Your task to perform on an android device: Open wifi settings Image 0: 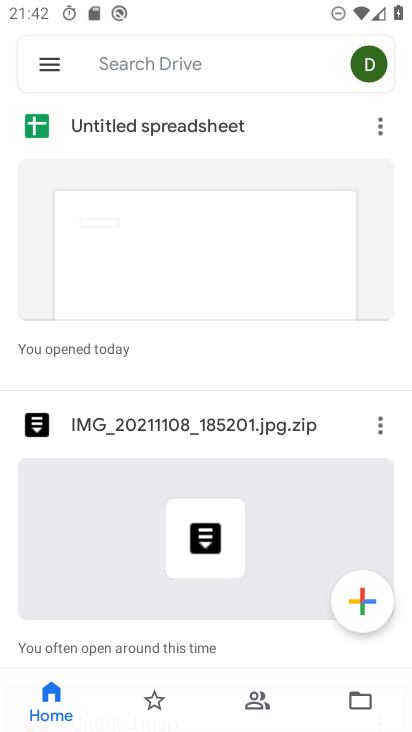
Step 0: press home button
Your task to perform on an android device: Open wifi settings Image 1: 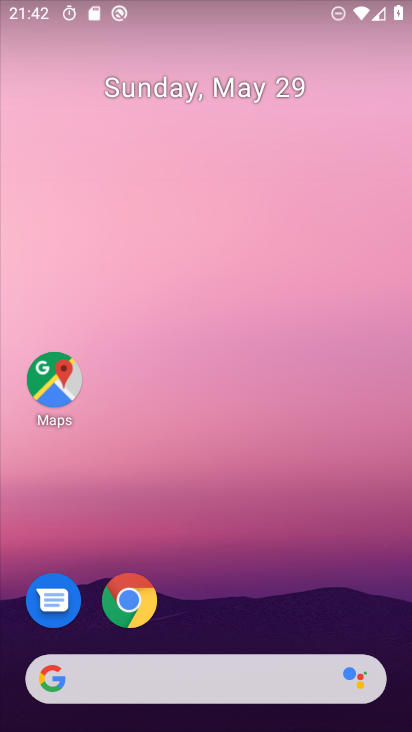
Step 1: drag from (331, 575) to (348, 167)
Your task to perform on an android device: Open wifi settings Image 2: 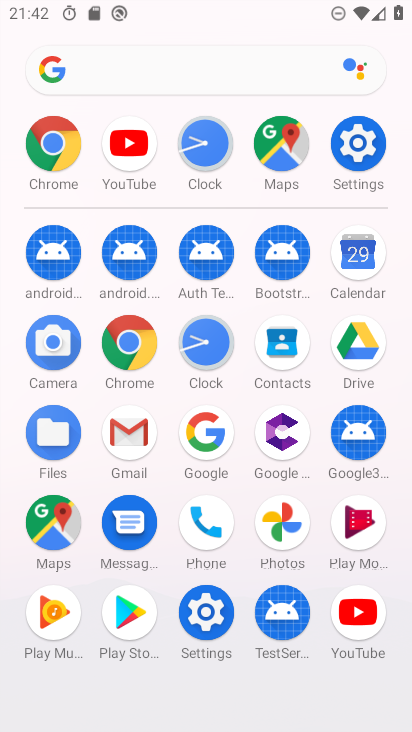
Step 2: click (354, 163)
Your task to perform on an android device: Open wifi settings Image 3: 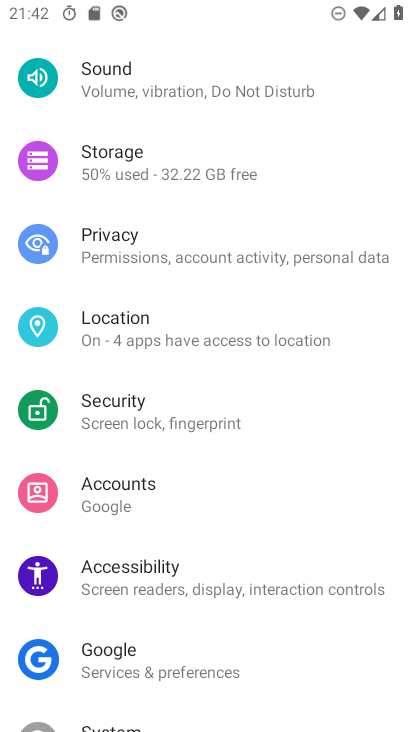
Step 3: drag from (251, 226) to (271, 709)
Your task to perform on an android device: Open wifi settings Image 4: 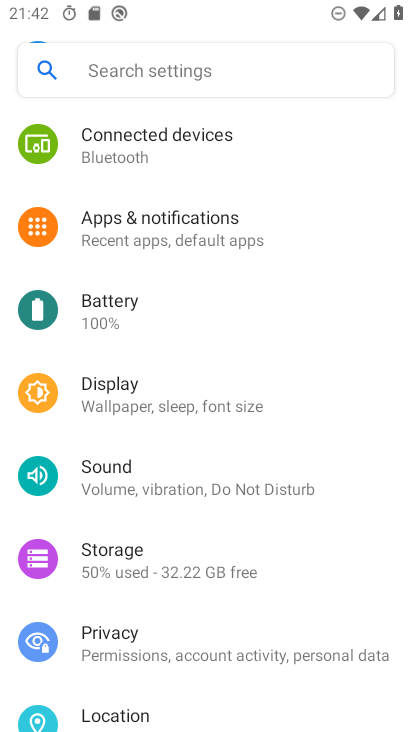
Step 4: drag from (310, 161) to (333, 641)
Your task to perform on an android device: Open wifi settings Image 5: 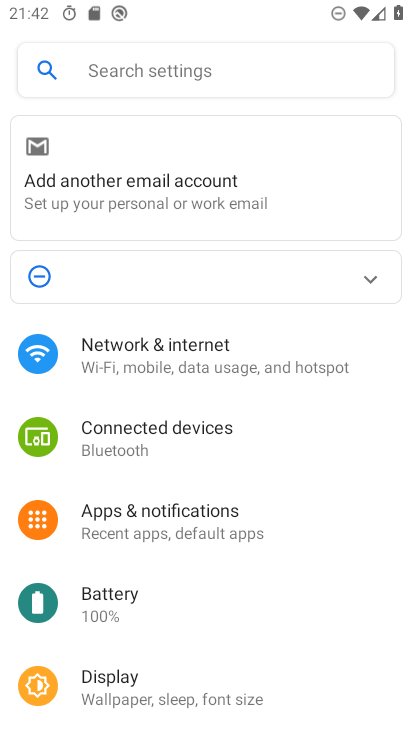
Step 5: click (281, 367)
Your task to perform on an android device: Open wifi settings Image 6: 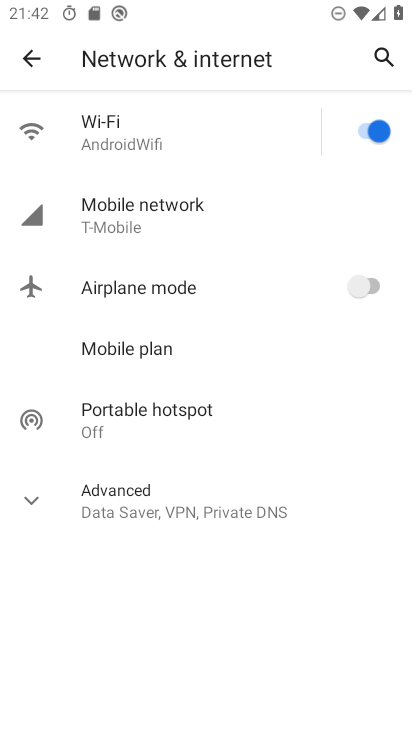
Step 6: click (203, 132)
Your task to perform on an android device: Open wifi settings Image 7: 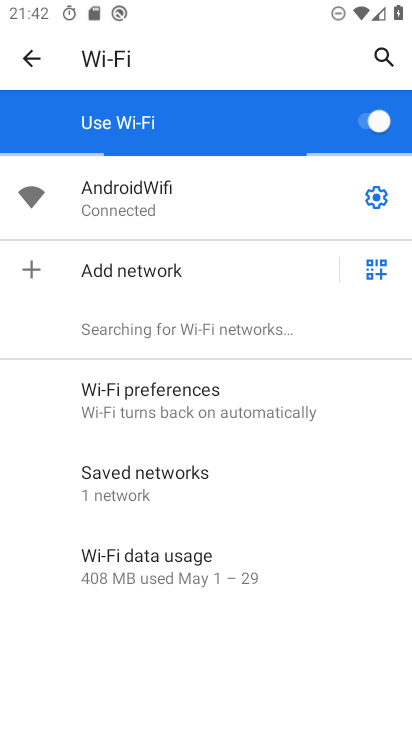
Step 7: click (367, 208)
Your task to perform on an android device: Open wifi settings Image 8: 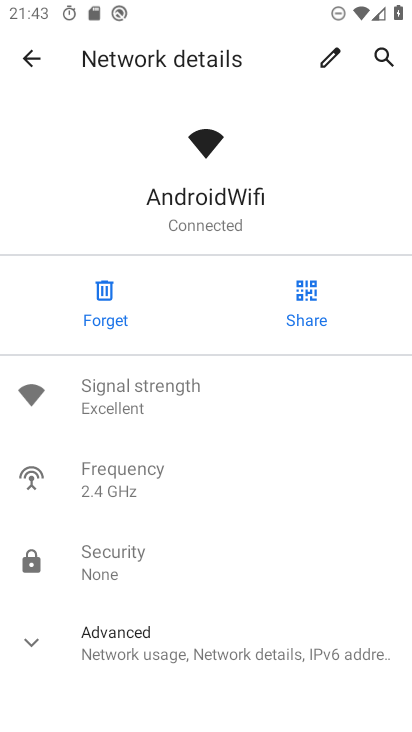
Step 8: task complete